Your task to perform on an android device: allow notifications from all sites in the chrome app Image 0: 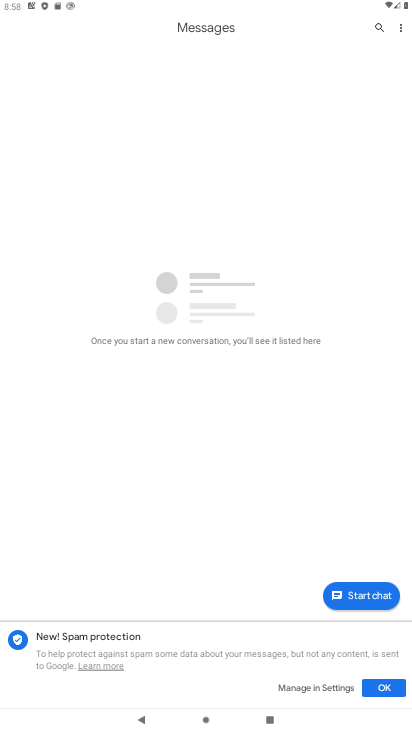
Step 0: press home button
Your task to perform on an android device: allow notifications from all sites in the chrome app Image 1: 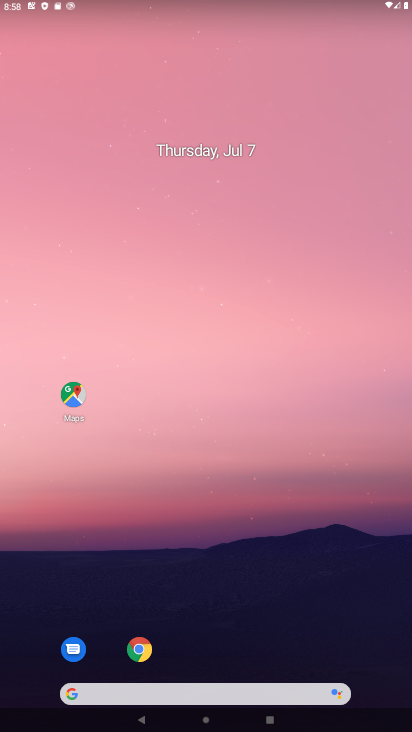
Step 1: drag from (228, 722) to (202, 201)
Your task to perform on an android device: allow notifications from all sites in the chrome app Image 2: 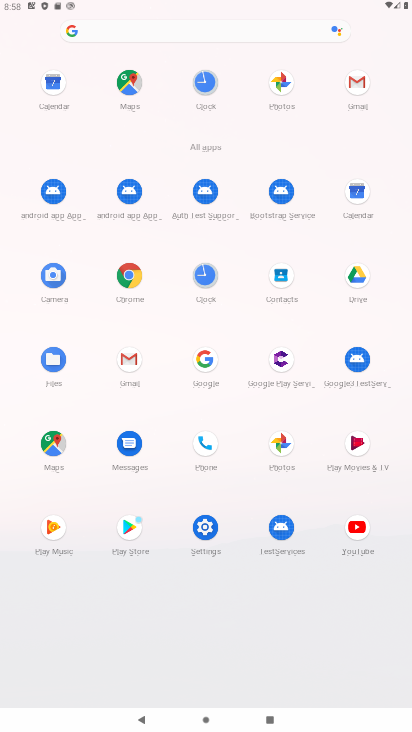
Step 2: click (127, 277)
Your task to perform on an android device: allow notifications from all sites in the chrome app Image 3: 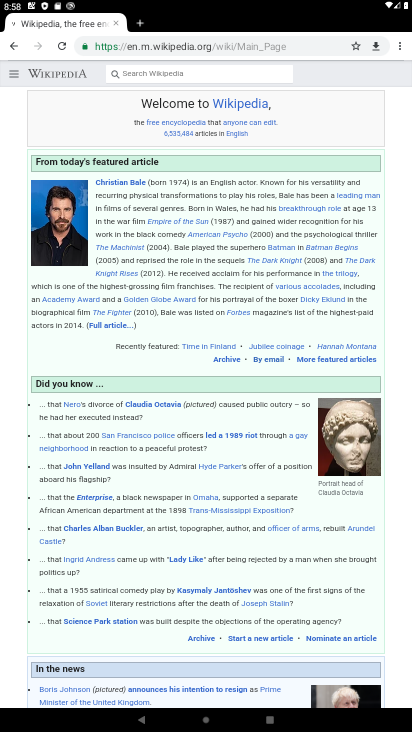
Step 3: click (400, 52)
Your task to perform on an android device: allow notifications from all sites in the chrome app Image 4: 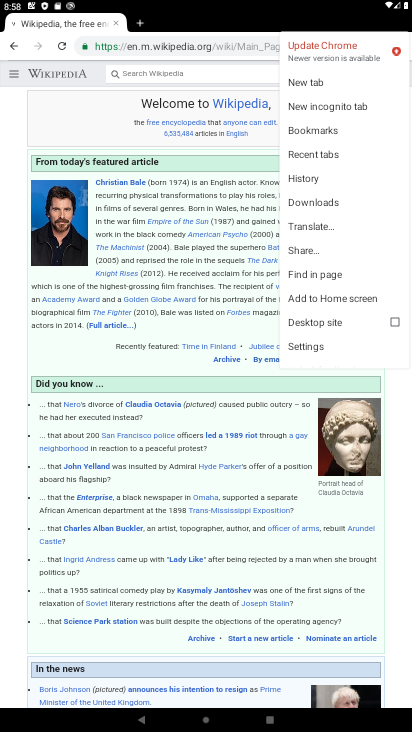
Step 4: click (311, 344)
Your task to perform on an android device: allow notifications from all sites in the chrome app Image 5: 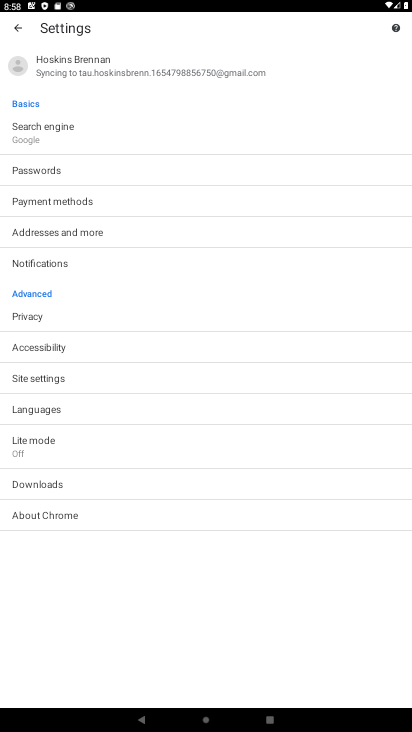
Step 5: click (56, 378)
Your task to perform on an android device: allow notifications from all sites in the chrome app Image 6: 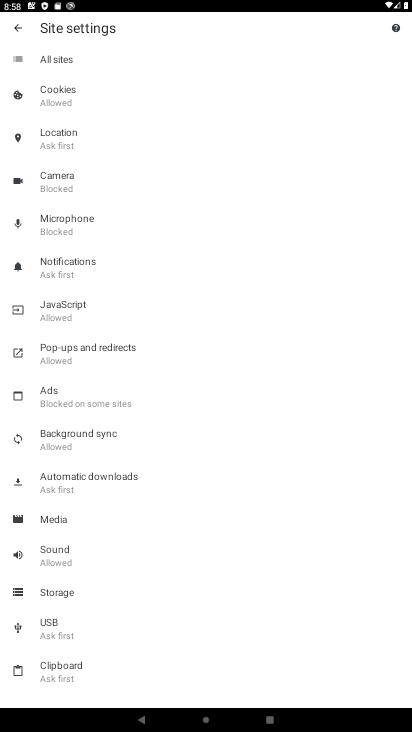
Step 6: click (68, 262)
Your task to perform on an android device: allow notifications from all sites in the chrome app Image 7: 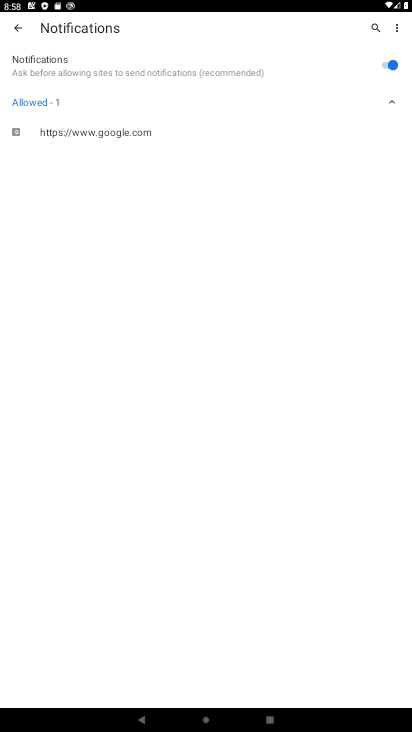
Step 7: task complete